Your task to perform on an android device: Open CNN.com Image 0: 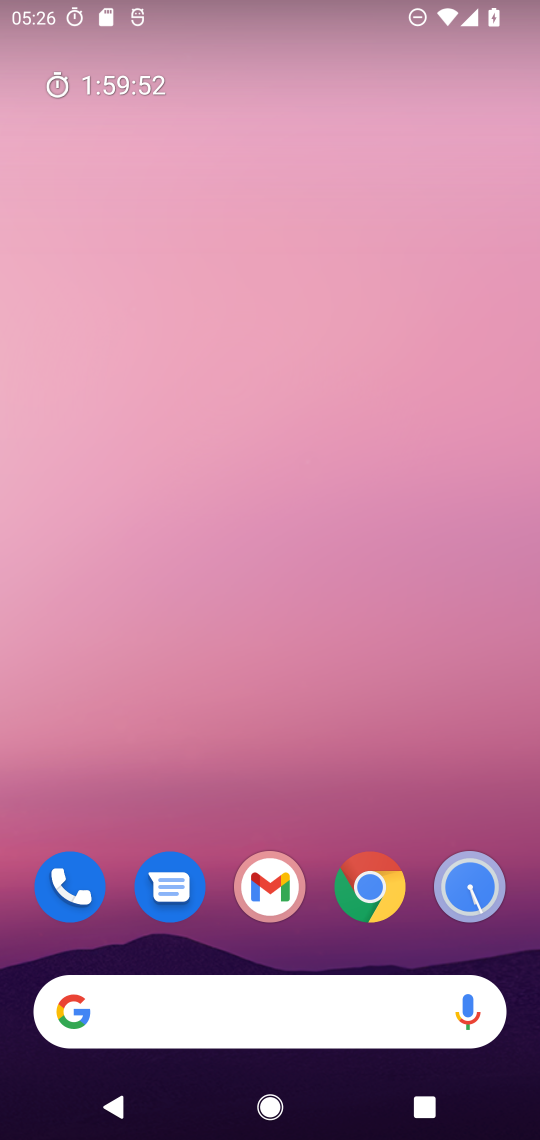
Step 0: press home button
Your task to perform on an android device: Open CNN.com Image 1: 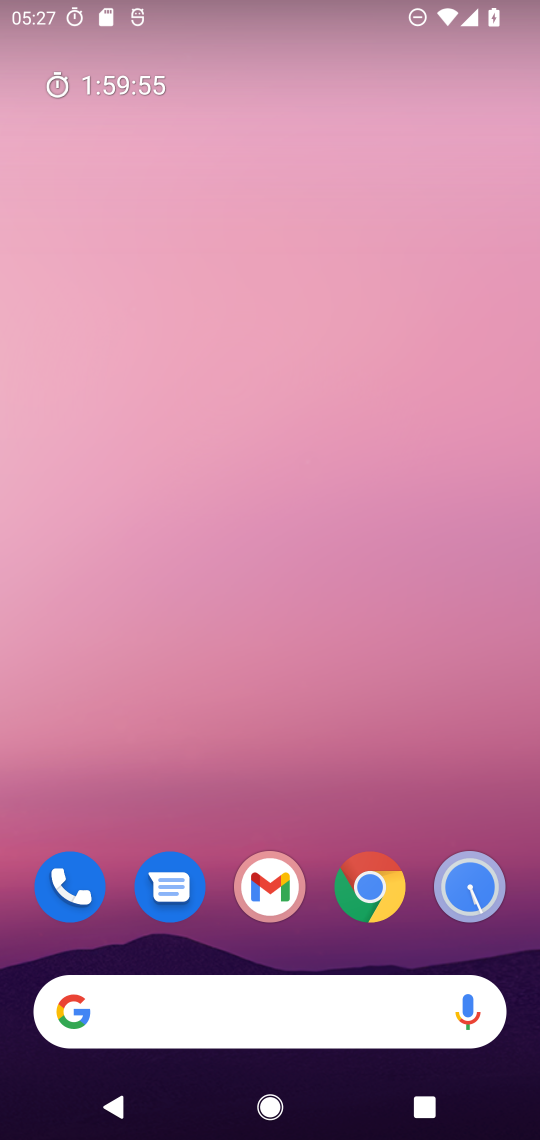
Step 1: drag from (331, 771) to (362, 267)
Your task to perform on an android device: Open CNN.com Image 2: 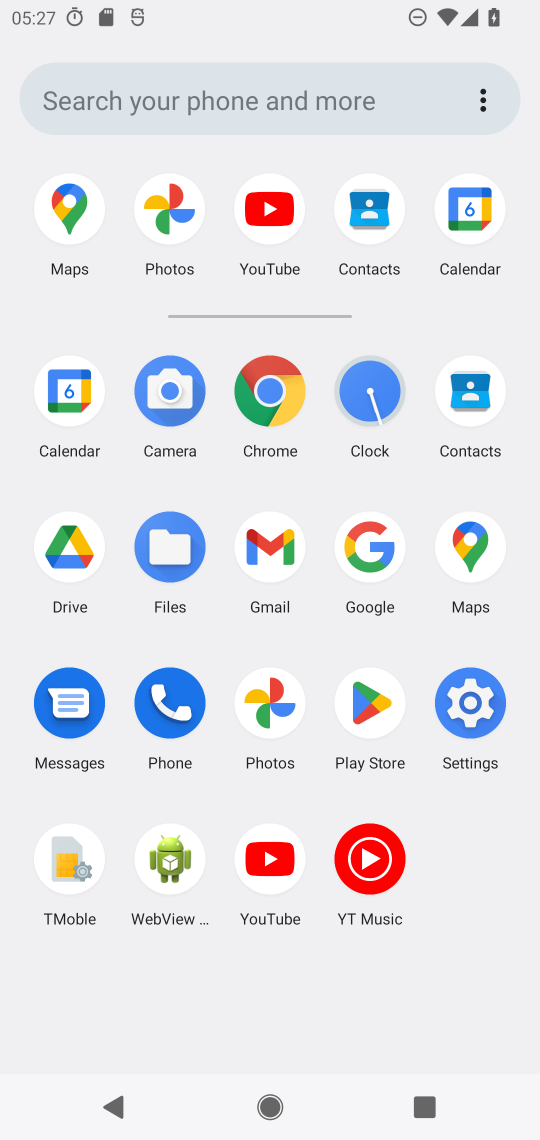
Step 2: click (276, 389)
Your task to perform on an android device: Open CNN.com Image 3: 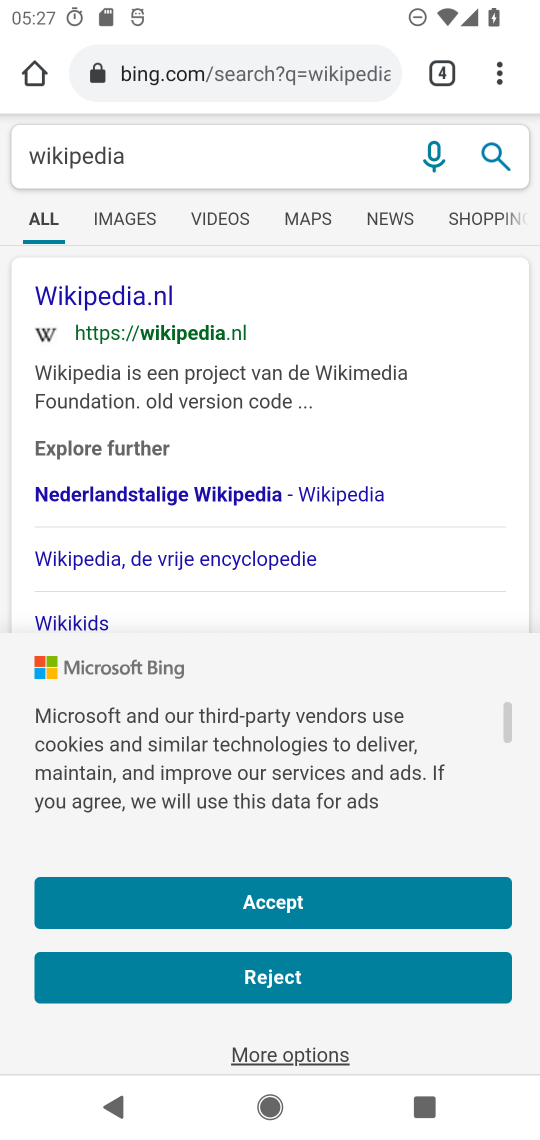
Step 3: click (292, 79)
Your task to perform on an android device: Open CNN.com Image 4: 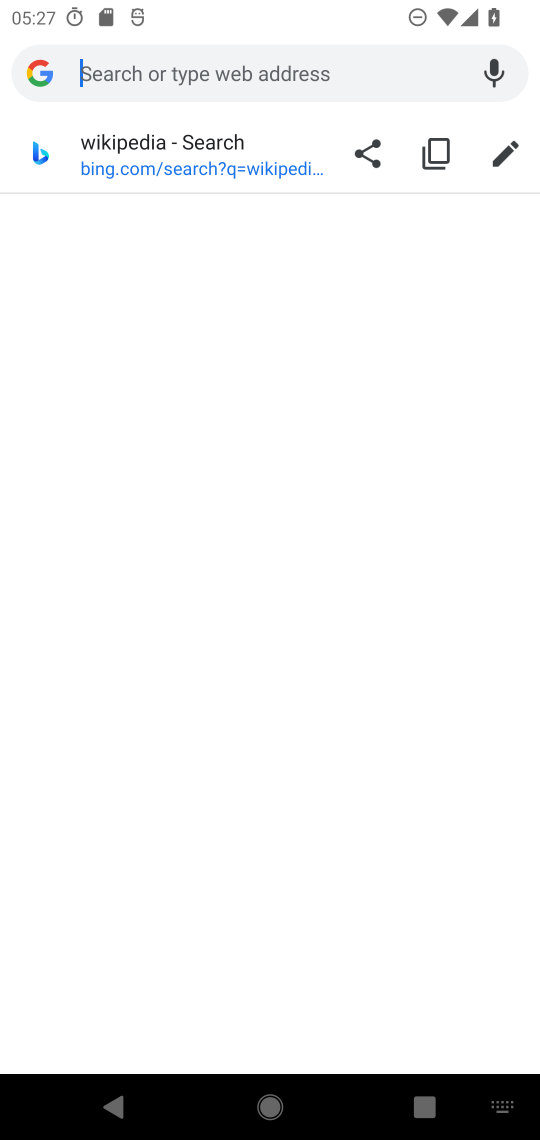
Step 4: type "cnn.com"
Your task to perform on an android device: Open CNN.com Image 5: 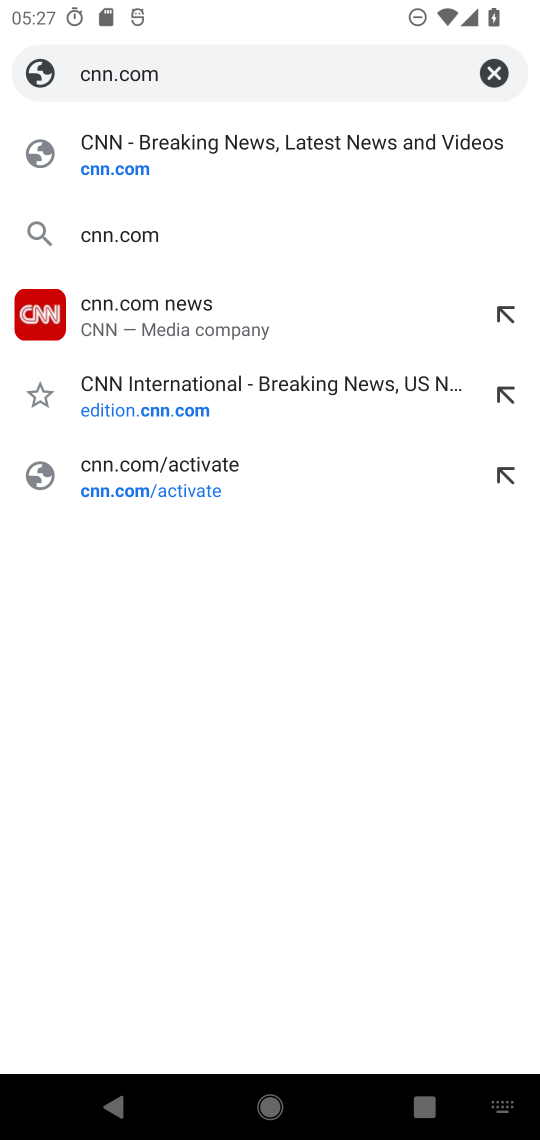
Step 5: click (134, 316)
Your task to perform on an android device: Open CNN.com Image 6: 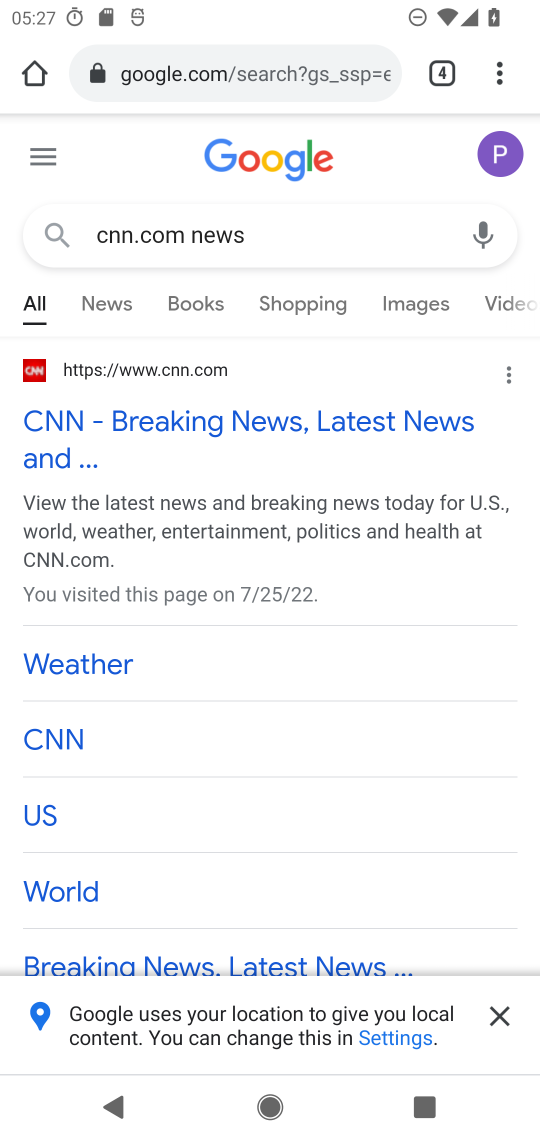
Step 6: task complete